Your task to perform on an android device: Go to Google maps Image 0: 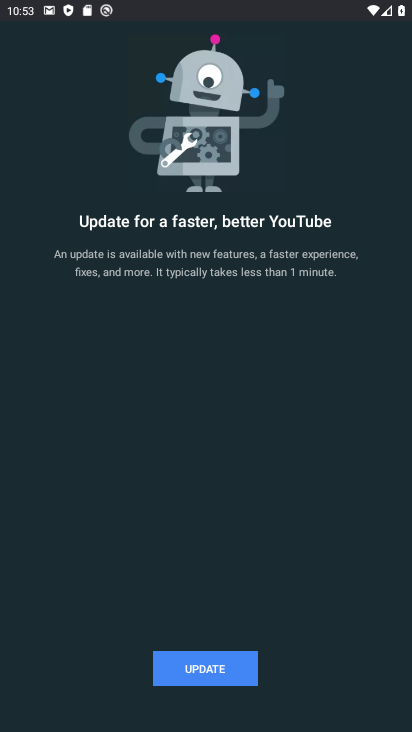
Step 0: press back button
Your task to perform on an android device: Go to Google maps Image 1: 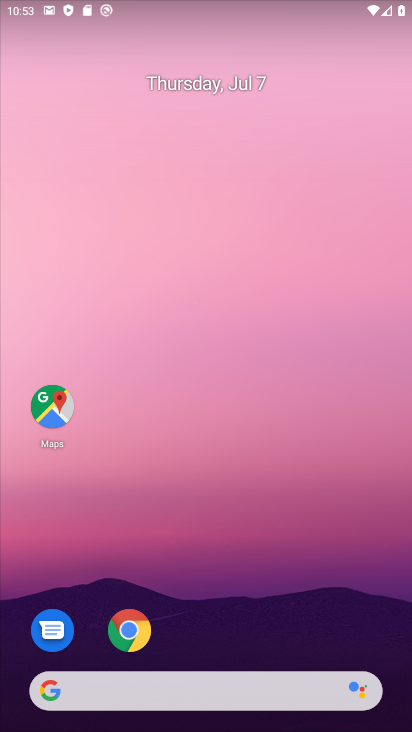
Step 1: click (56, 407)
Your task to perform on an android device: Go to Google maps Image 2: 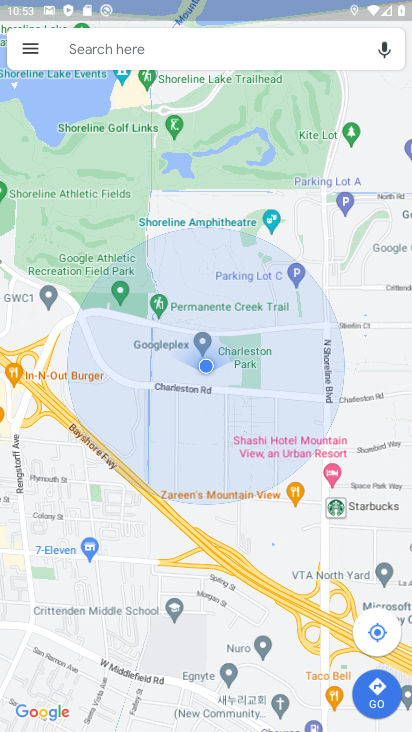
Step 2: task complete